Your task to perform on an android device: allow notifications from all sites in the chrome app Image 0: 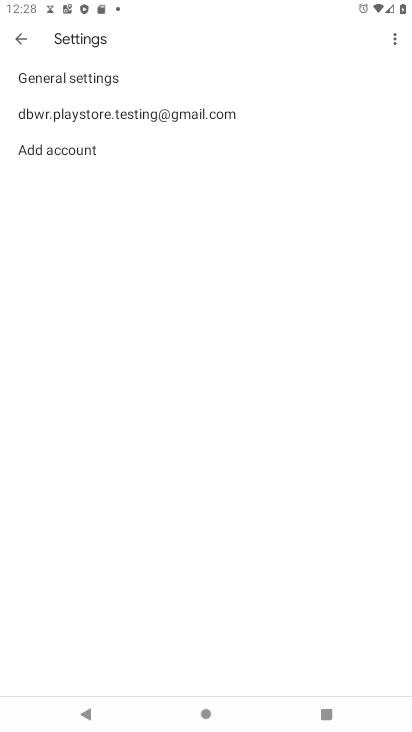
Step 0: press home button
Your task to perform on an android device: allow notifications from all sites in the chrome app Image 1: 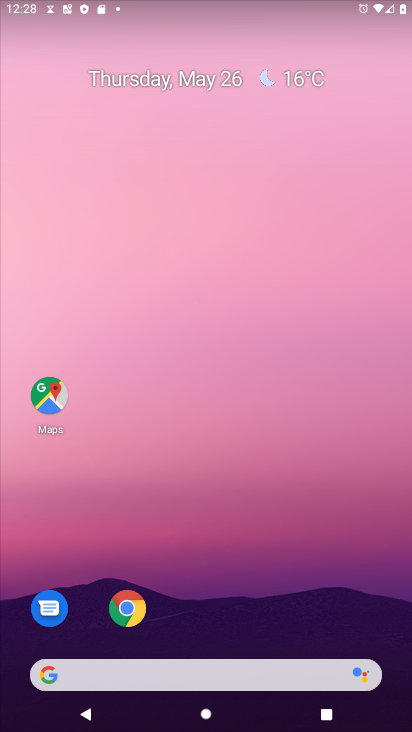
Step 1: click (130, 610)
Your task to perform on an android device: allow notifications from all sites in the chrome app Image 2: 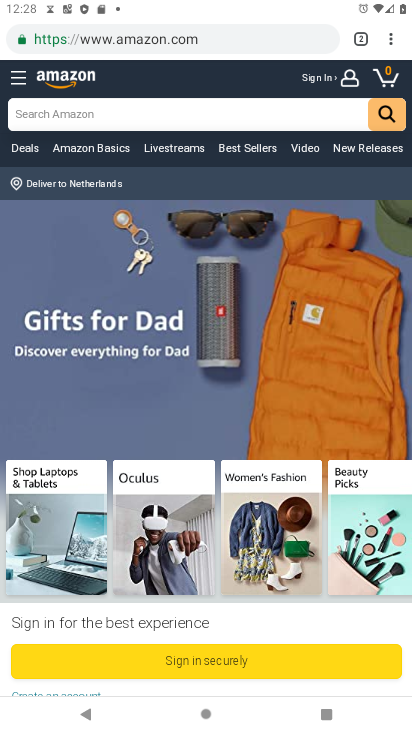
Step 2: click (392, 44)
Your task to perform on an android device: allow notifications from all sites in the chrome app Image 3: 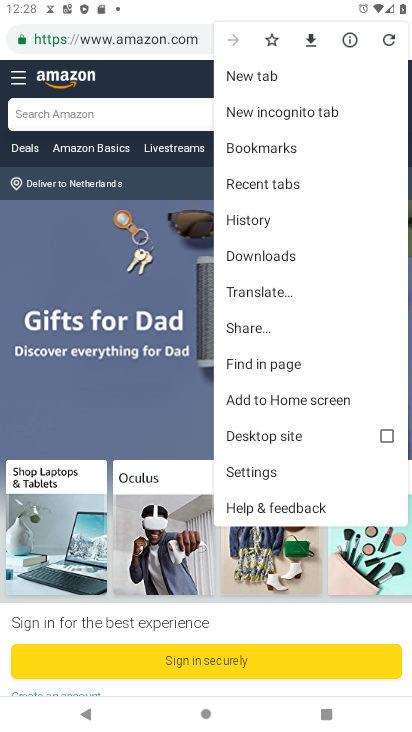
Step 3: click (249, 468)
Your task to perform on an android device: allow notifications from all sites in the chrome app Image 4: 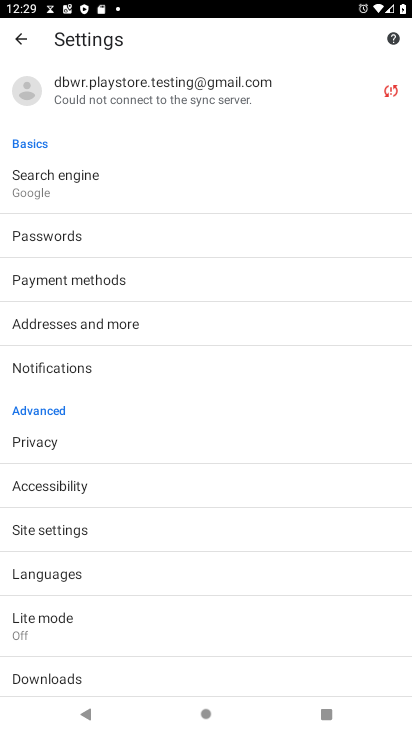
Step 4: click (69, 526)
Your task to perform on an android device: allow notifications from all sites in the chrome app Image 5: 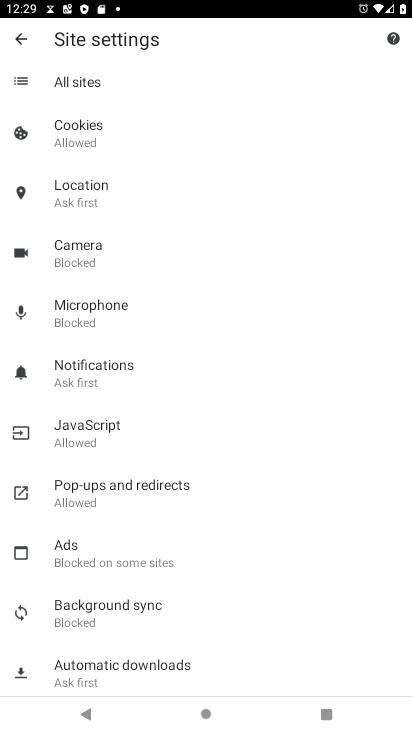
Step 5: click (86, 365)
Your task to perform on an android device: allow notifications from all sites in the chrome app Image 6: 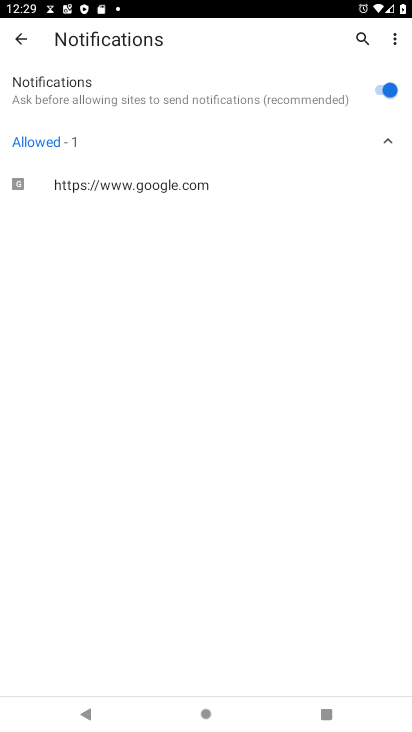
Step 6: task complete